Your task to perform on an android device: Go to Amazon Image 0: 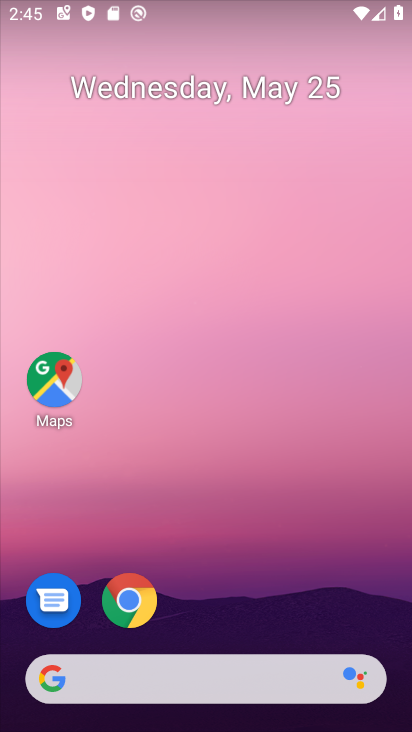
Step 0: click (132, 603)
Your task to perform on an android device: Go to Amazon Image 1: 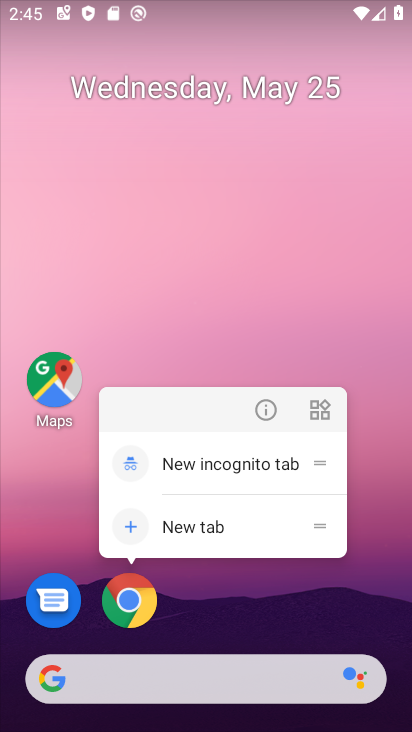
Step 1: click (137, 594)
Your task to perform on an android device: Go to Amazon Image 2: 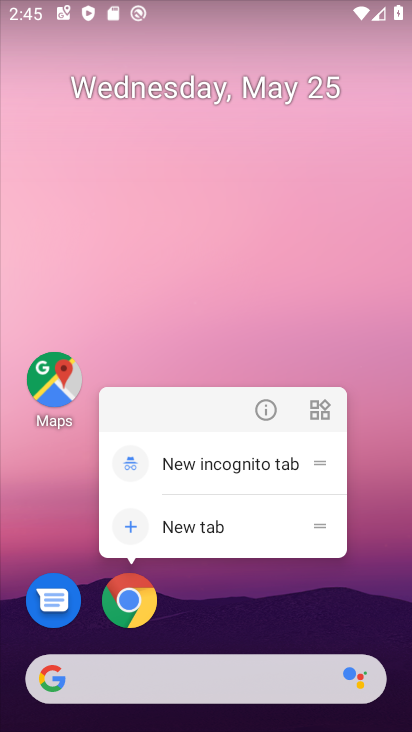
Step 2: click (132, 604)
Your task to perform on an android device: Go to Amazon Image 3: 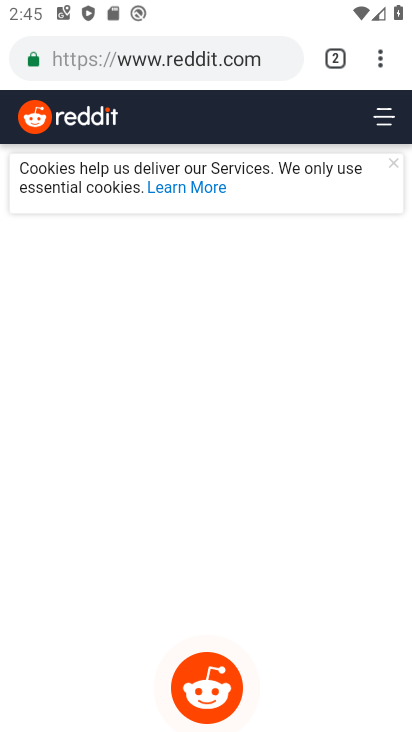
Step 3: click (326, 61)
Your task to perform on an android device: Go to Amazon Image 4: 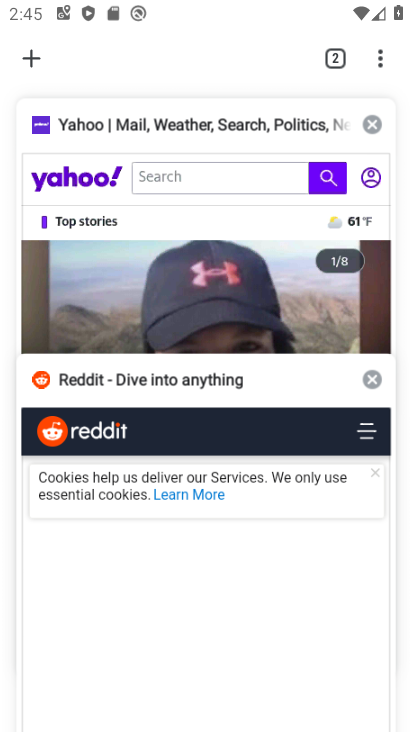
Step 4: click (371, 126)
Your task to perform on an android device: Go to Amazon Image 5: 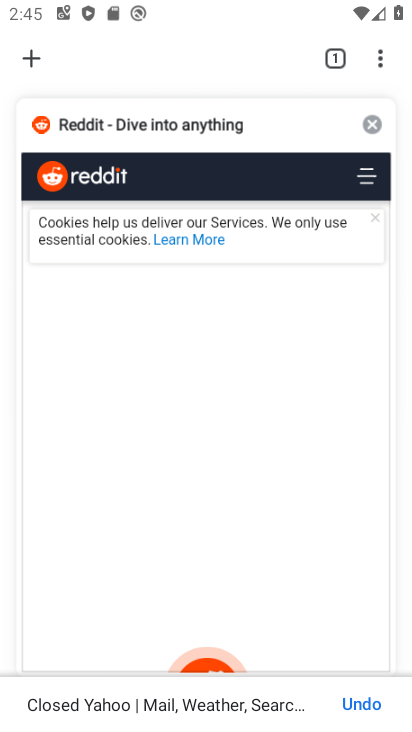
Step 5: click (373, 126)
Your task to perform on an android device: Go to Amazon Image 6: 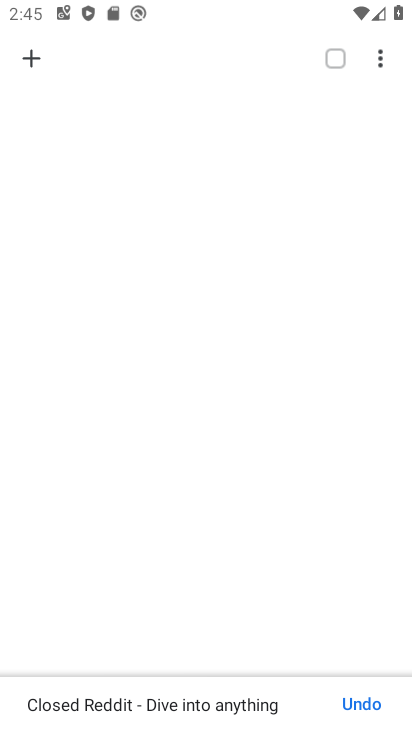
Step 6: click (40, 62)
Your task to perform on an android device: Go to Amazon Image 7: 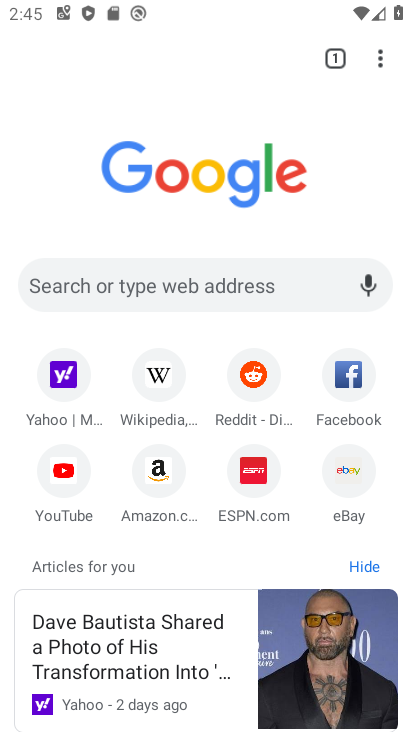
Step 7: click (158, 476)
Your task to perform on an android device: Go to Amazon Image 8: 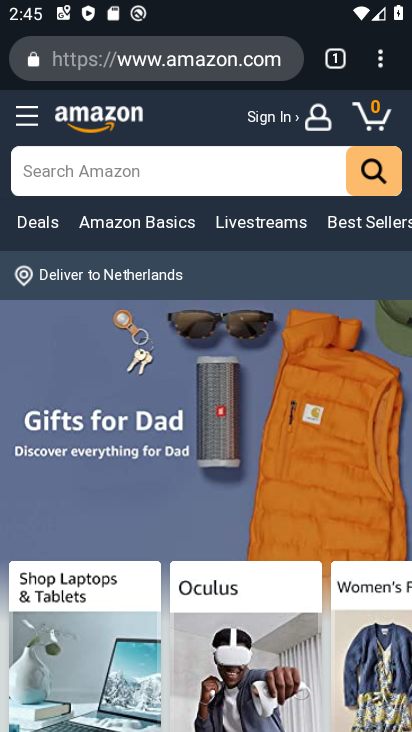
Step 8: task complete